Your task to perform on an android device: toggle javascript in the chrome app Image 0: 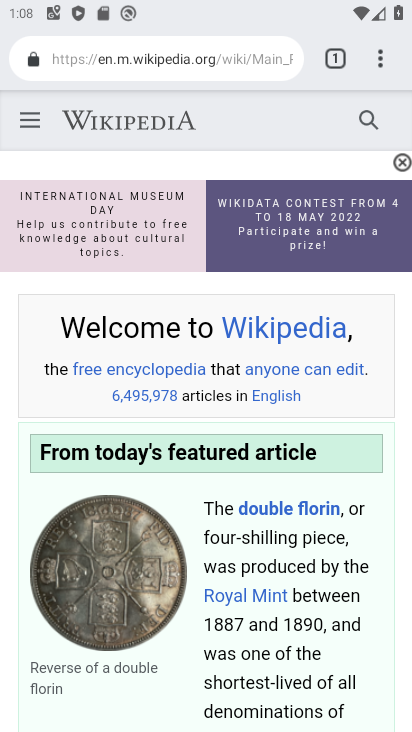
Step 0: press home button
Your task to perform on an android device: toggle javascript in the chrome app Image 1: 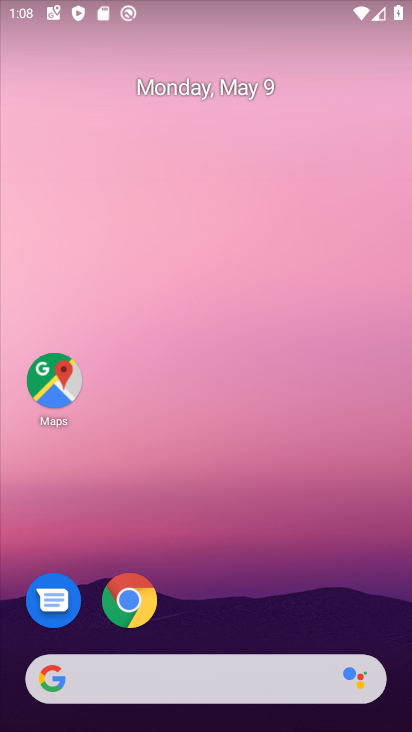
Step 1: click (141, 599)
Your task to perform on an android device: toggle javascript in the chrome app Image 2: 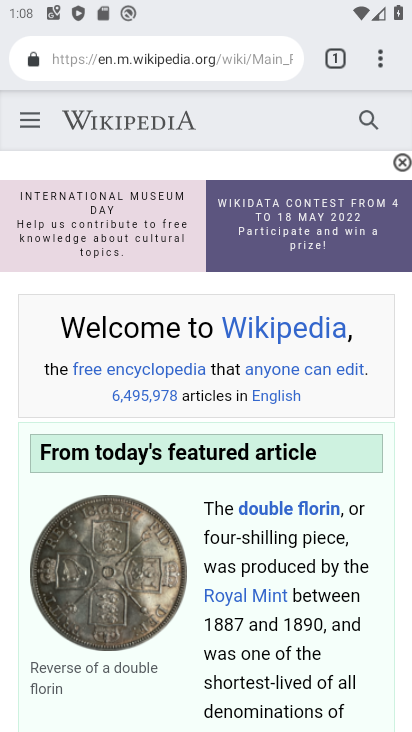
Step 2: click (393, 55)
Your task to perform on an android device: toggle javascript in the chrome app Image 3: 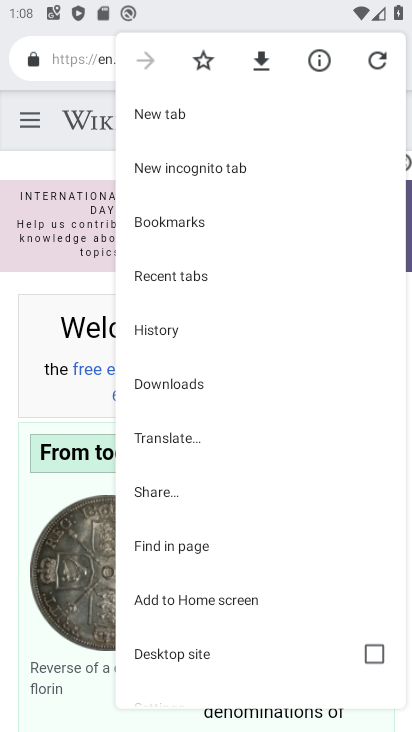
Step 3: drag from (215, 616) to (263, 283)
Your task to perform on an android device: toggle javascript in the chrome app Image 4: 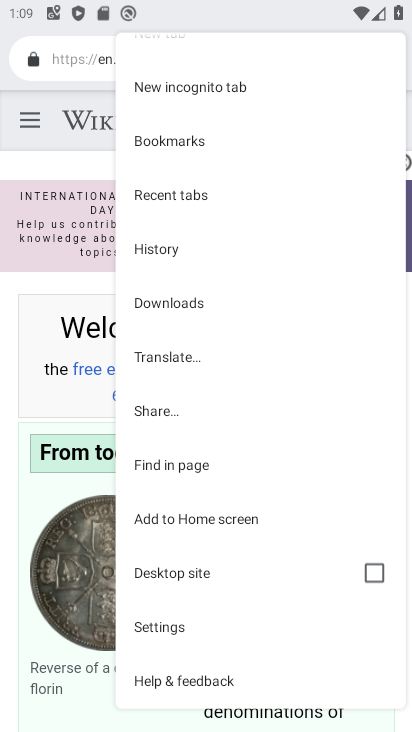
Step 4: click (187, 627)
Your task to perform on an android device: toggle javascript in the chrome app Image 5: 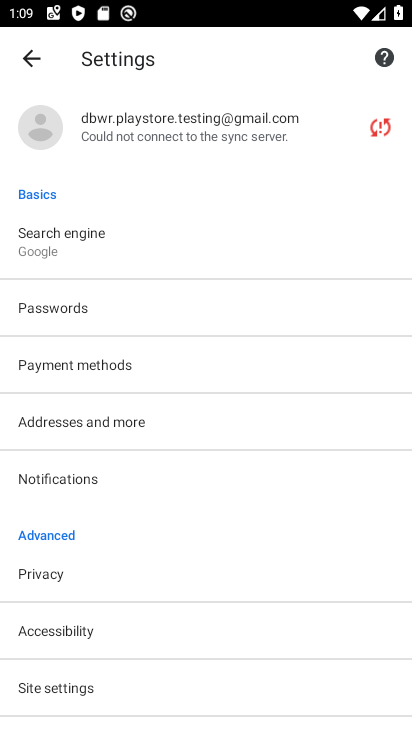
Step 5: click (119, 666)
Your task to perform on an android device: toggle javascript in the chrome app Image 6: 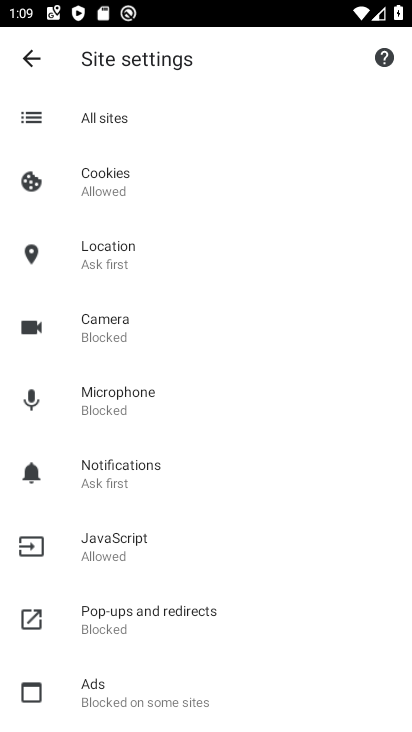
Step 6: click (173, 570)
Your task to perform on an android device: toggle javascript in the chrome app Image 7: 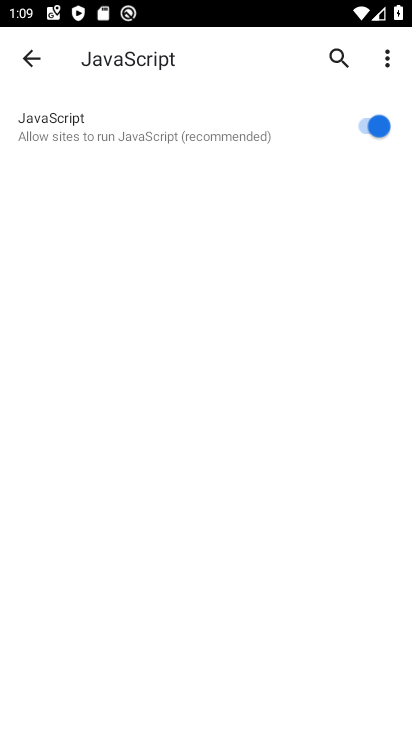
Step 7: click (384, 112)
Your task to perform on an android device: toggle javascript in the chrome app Image 8: 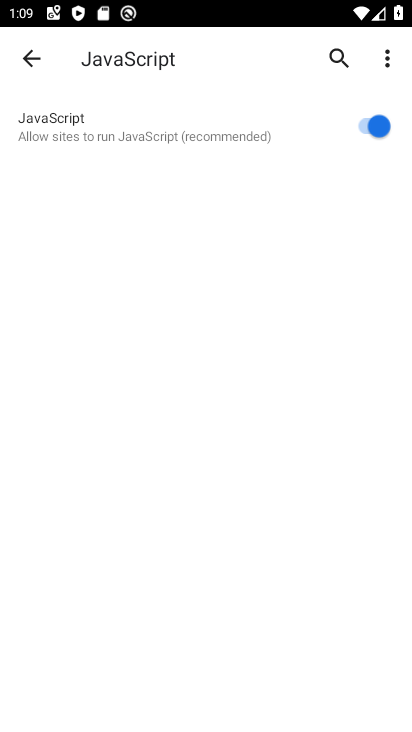
Step 8: click (384, 112)
Your task to perform on an android device: toggle javascript in the chrome app Image 9: 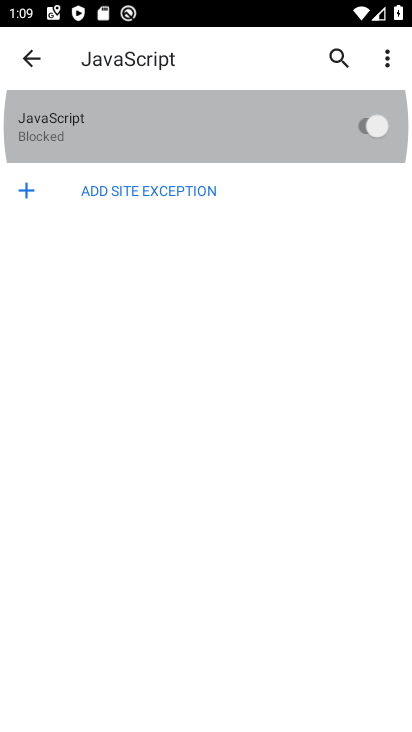
Step 9: click (384, 112)
Your task to perform on an android device: toggle javascript in the chrome app Image 10: 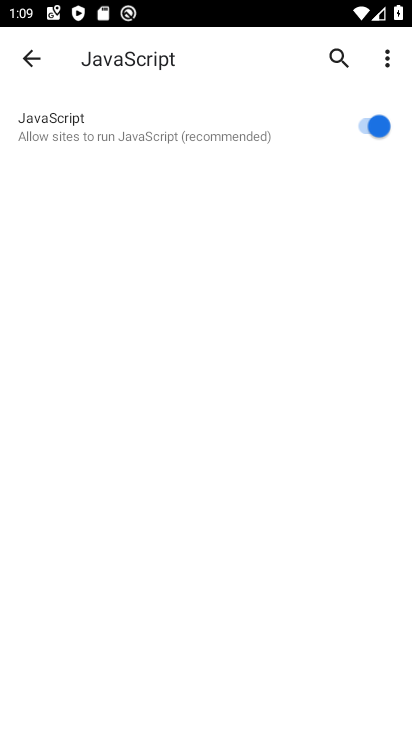
Step 10: task complete